Your task to perform on an android device: Open network settings Image 0: 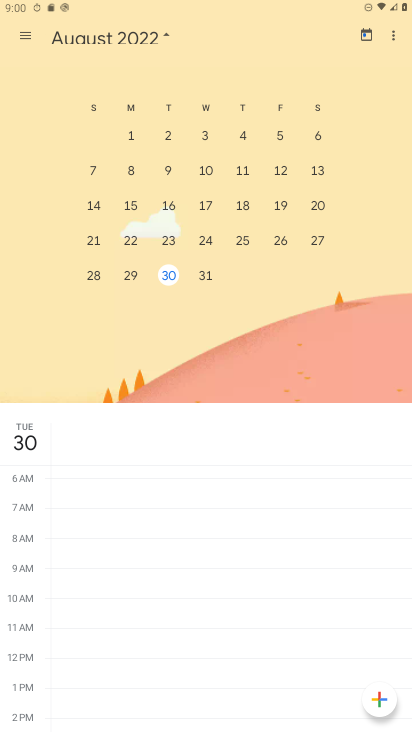
Step 0: press home button
Your task to perform on an android device: Open network settings Image 1: 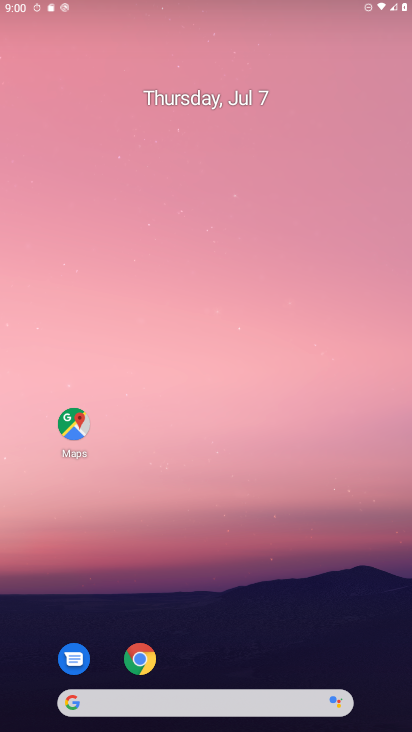
Step 1: drag from (373, 702) to (239, 220)
Your task to perform on an android device: Open network settings Image 2: 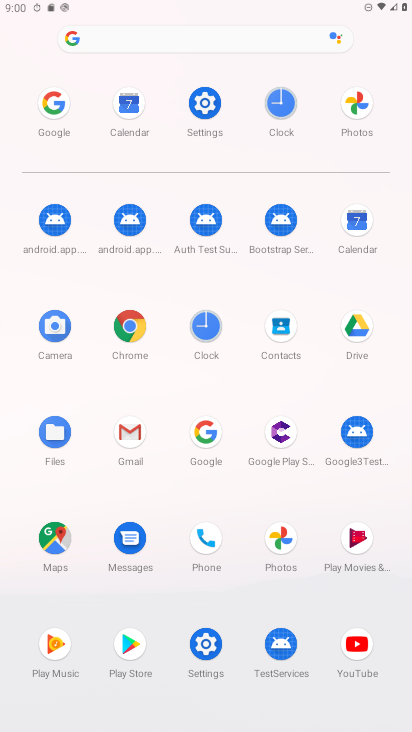
Step 2: click (192, 93)
Your task to perform on an android device: Open network settings Image 3: 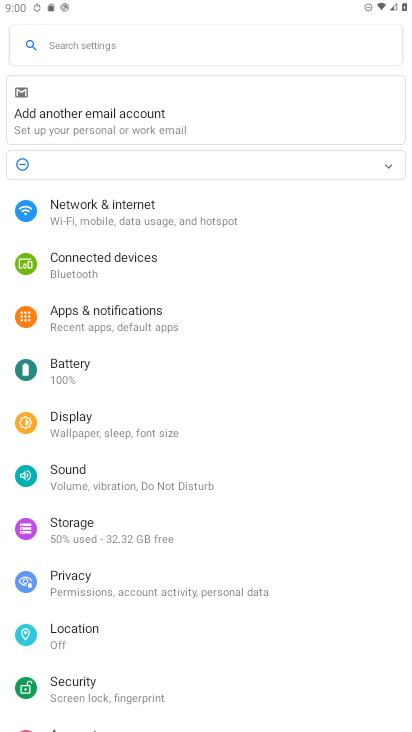
Step 3: click (142, 208)
Your task to perform on an android device: Open network settings Image 4: 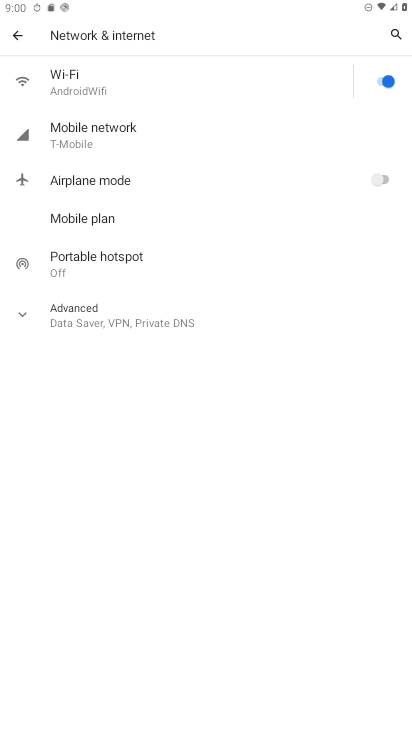
Step 4: task complete